Your task to perform on an android device: toggle notifications settings in the gmail app Image 0: 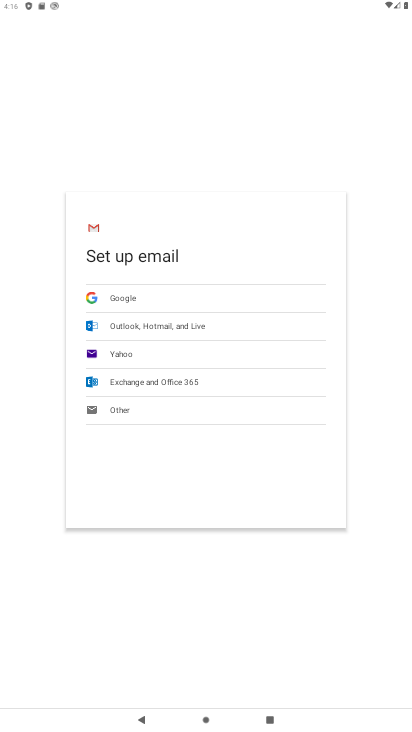
Step 0: press home button
Your task to perform on an android device: toggle notifications settings in the gmail app Image 1: 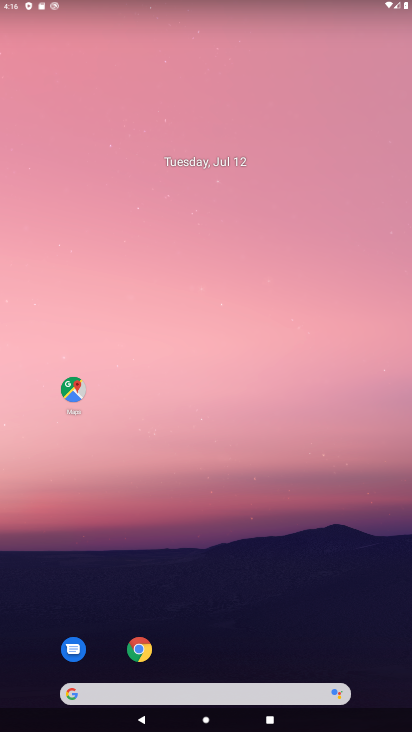
Step 1: drag from (190, 687) to (281, 182)
Your task to perform on an android device: toggle notifications settings in the gmail app Image 2: 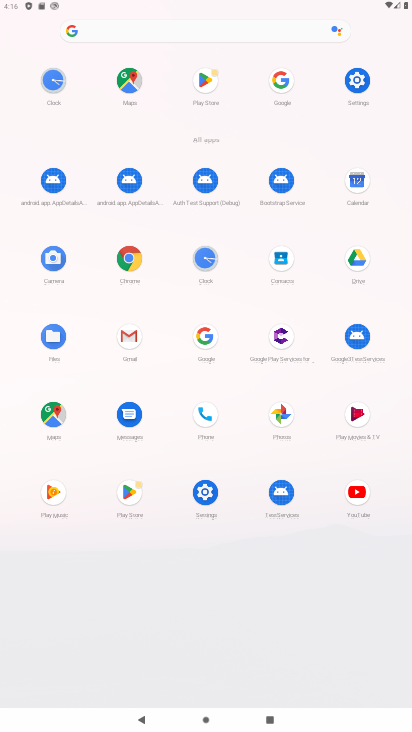
Step 2: click (129, 335)
Your task to perform on an android device: toggle notifications settings in the gmail app Image 3: 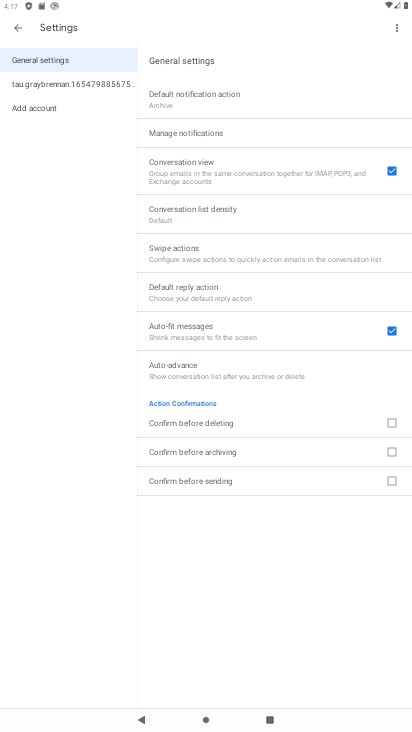
Step 3: click (183, 132)
Your task to perform on an android device: toggle notifications settings in the gmail app Image 4: 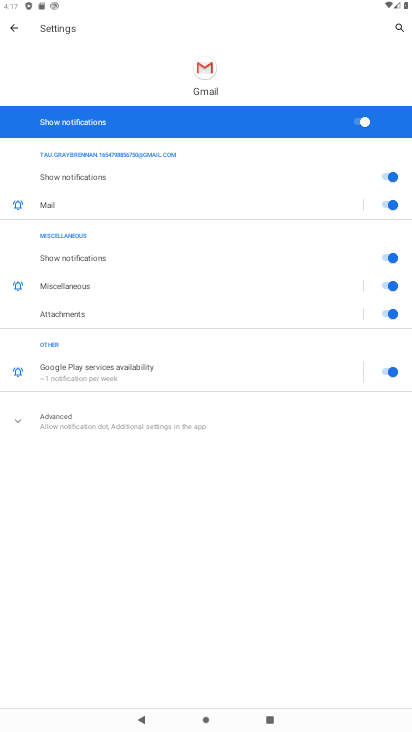
Step 4: click (361, 125)
Your task to perform on an android device: toggle notifications settings in the gmail app Image 5: 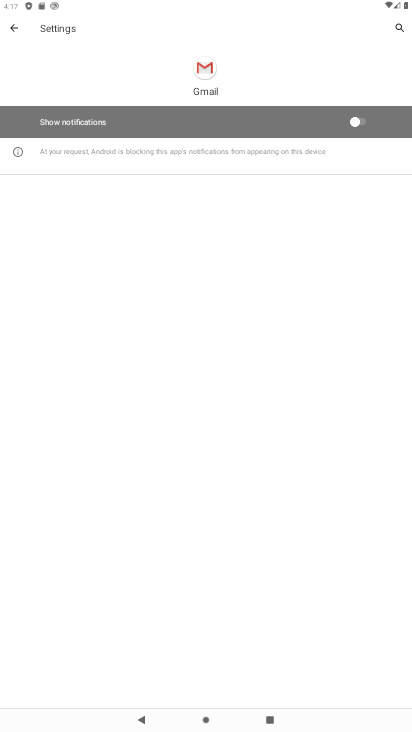
Step 5: task complete